Your task to perform on an android device: Open Yahoo.com Image 0: 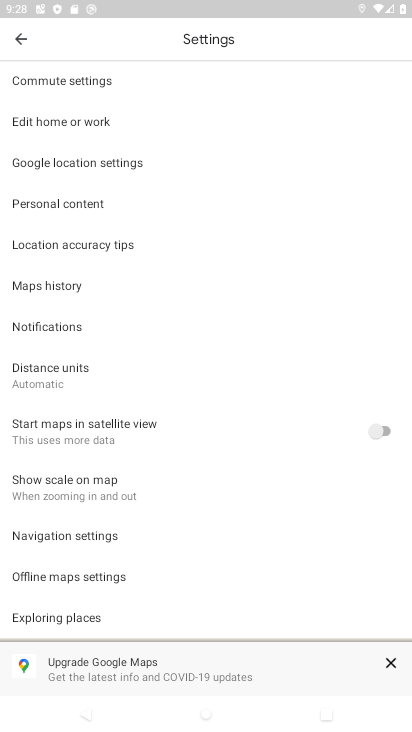
Step 0: task complete